Your task to perform on an android device: change the clock display to digital Image 0: 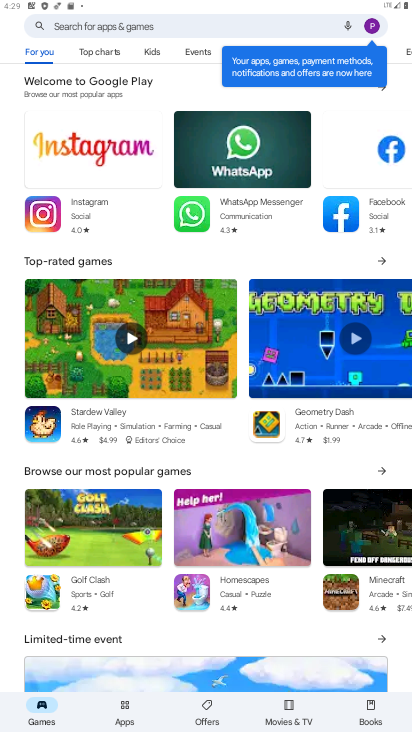
Step 0: press home button
Your task to perform on an android device: change the clock display to digital Image 1: 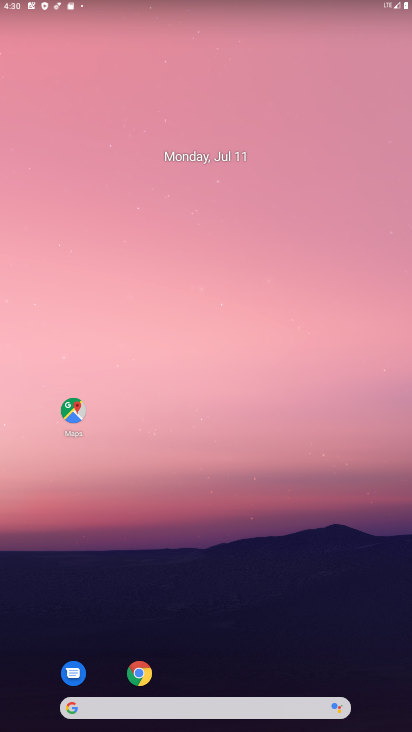
Step 1: drag from (298, 652) to (214, 86)
Your task to perform on an android device: change the clock display to digital Image 2: 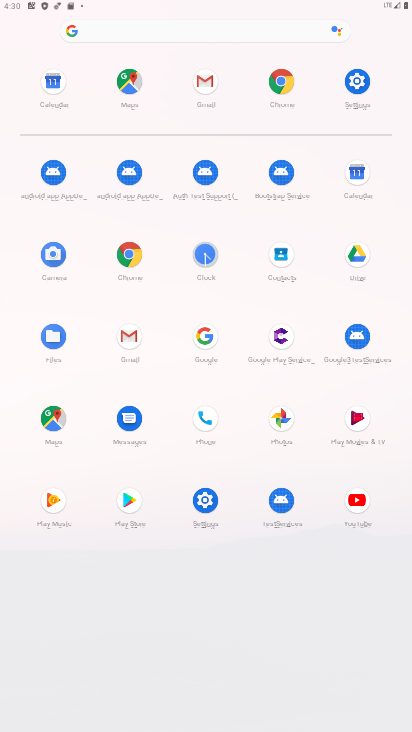
Step 2: click (206, 254)
Your task to perform on an android device: change the clock display to digital Image 3: 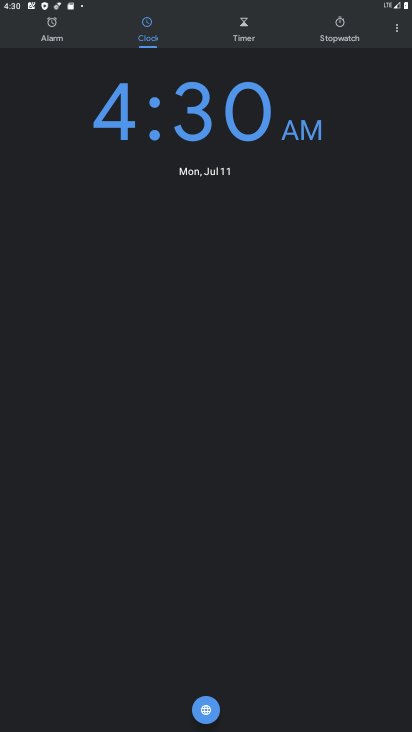
Step 3: click (400, 25)
Your task to perform on an android device: change the clock display to digital Image 4: 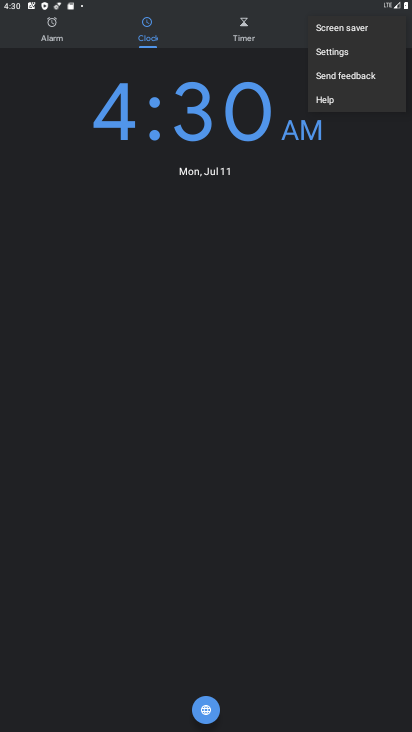
Step 4: click (335, 52)
Your task to perform on an android device: change the clock display to digital Image 5: 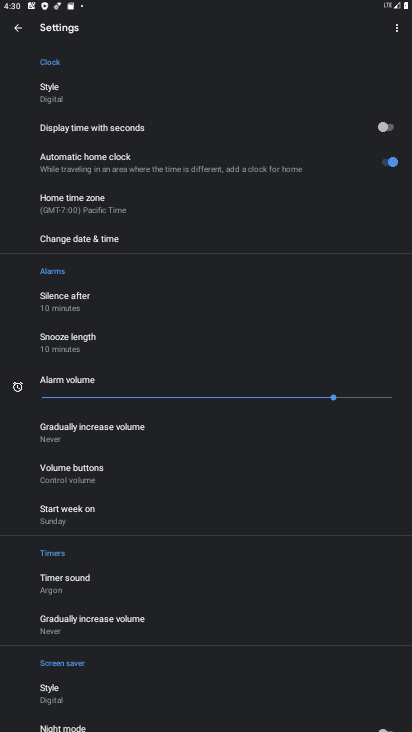
Step 5: task complete